Your task to perform on an android device: check the backup settings in the google photos Image 0: 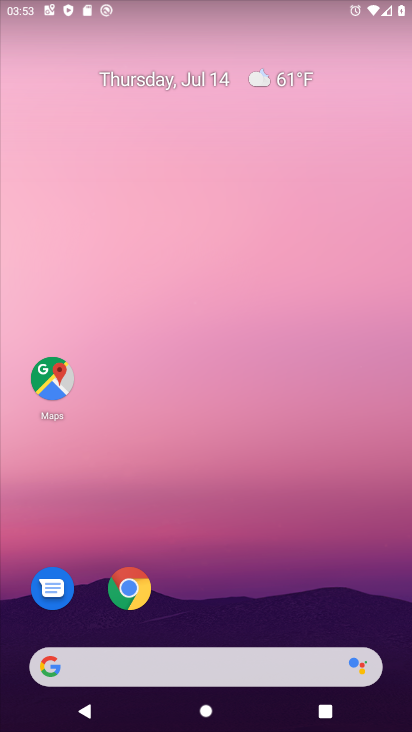
Step 0: press home button
Your task to perform on an android device: check the backup settings in the google photos Image 1: 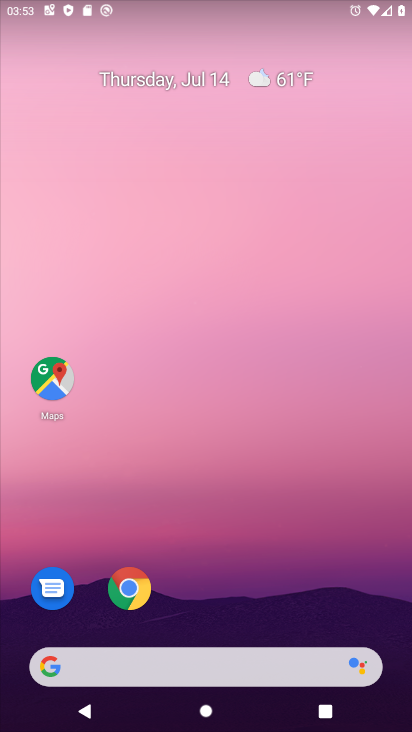
Step 1: drag from (270, 613) to (256, 73)
Your task to perform on an android device: check the backup settings in the google photos Image 2: 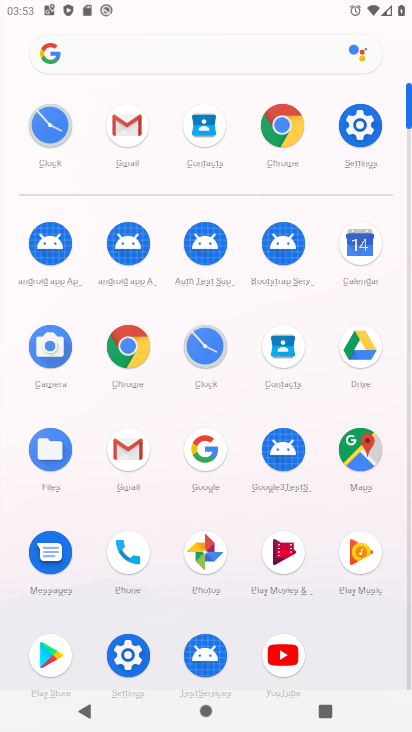
Step 2: click (215, 558)
Your task to perform on an android device: check the backup settings in the google photos Image 3: 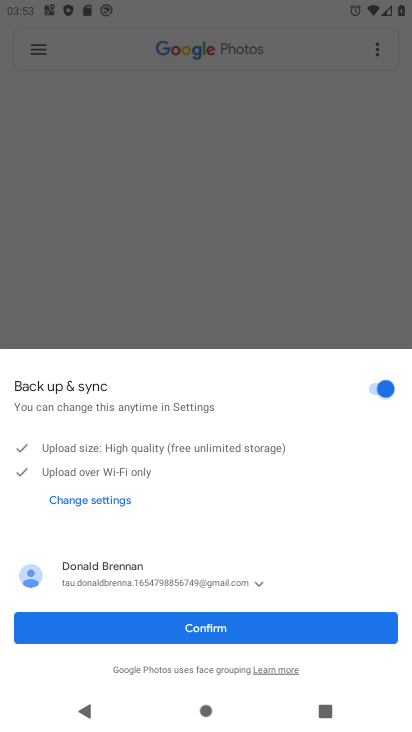
Step 3: click (42, 41)
Your task to perform on an android device: check the backup settings in the google photos Image 4: 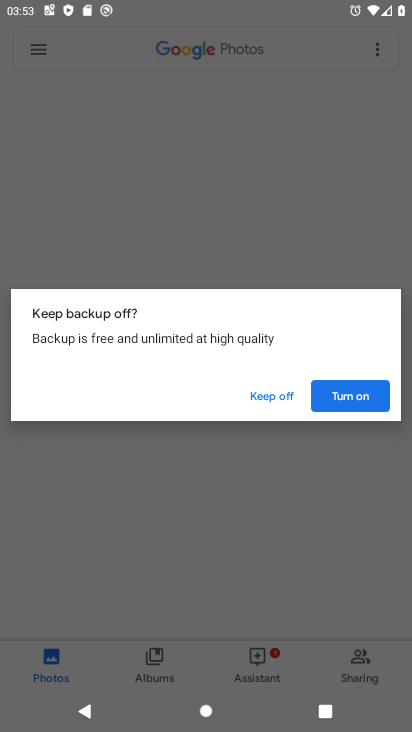
Step 4: click (353, 396)
Your task to perform on an android device: check the backup settings in the google photos Image 5: 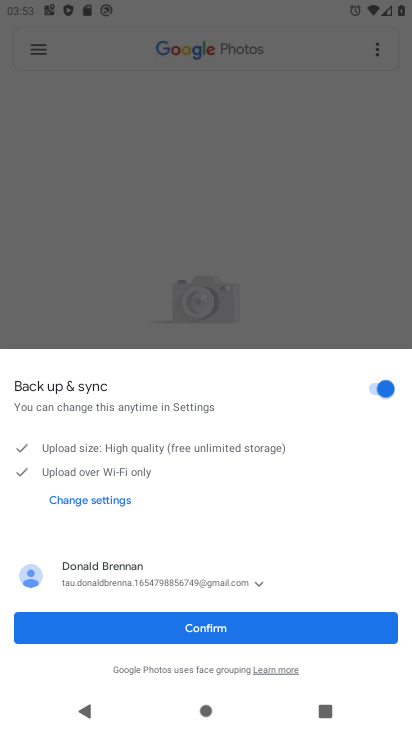
Step 5: click (191, 616)
Your task to perform on an android device: check the backup settings in the google photos Image 6: 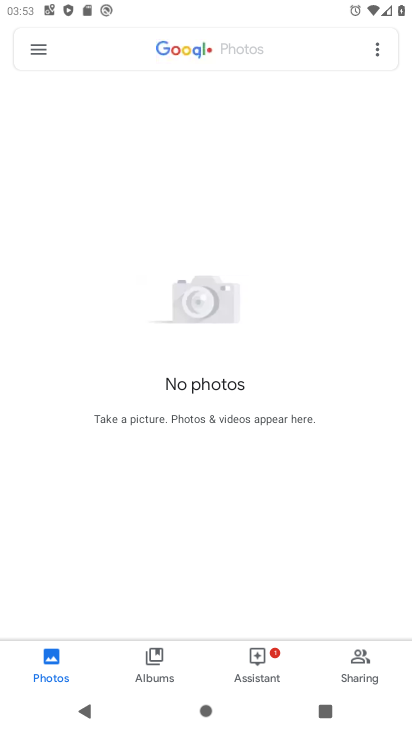
Step 6: click (38, 45)
Your task to perform on an android device: check the backup settings in the google photos Image 7: 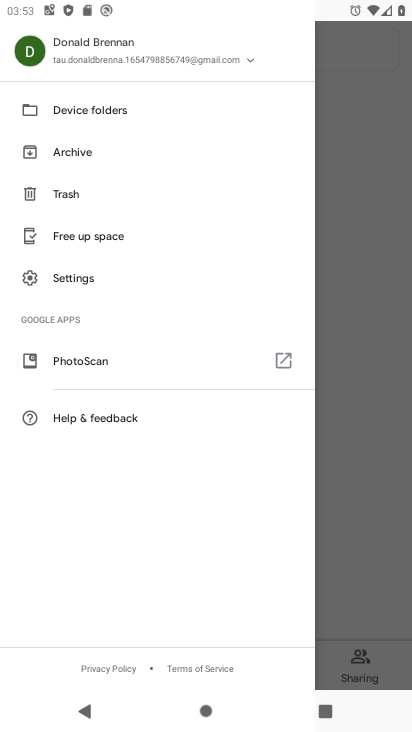
Step 7: click (69, 280)
Your task to perform on an android device: check the backup settings in the google photos Image 8: 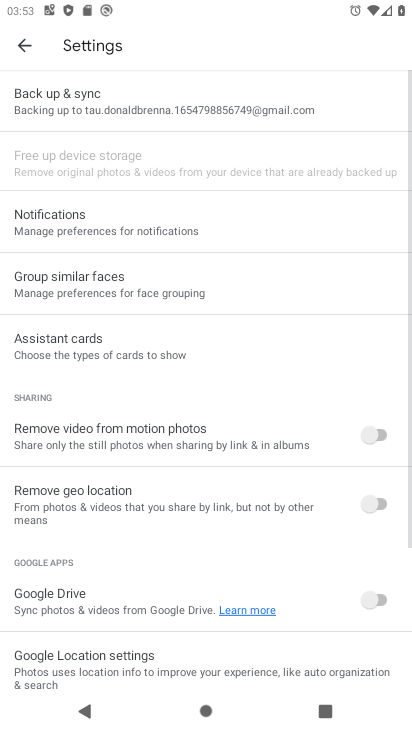
Step 8: click (92, 95)
Your task to perform on an android device: check the backup settings in the google photos Image 9: 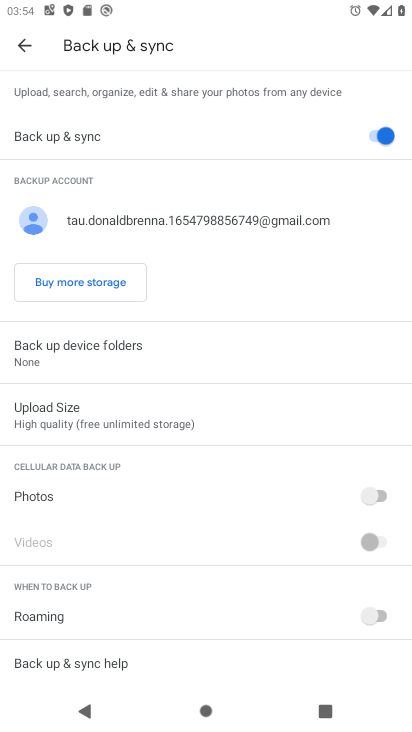
Step 9: task complete